Your task to perform on an android device: Go to accessibility settings Image 0: 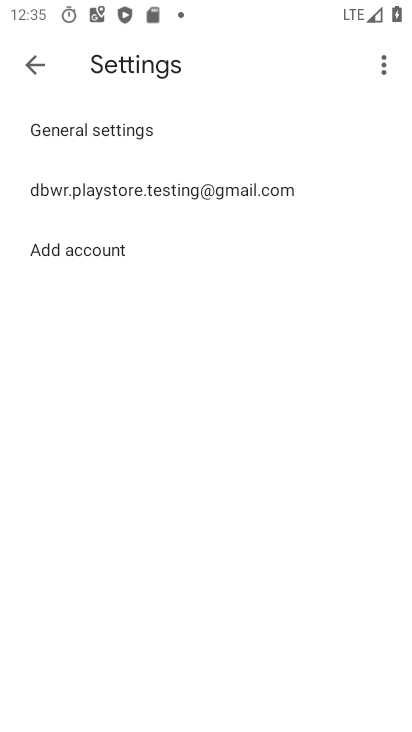
Step 0: press home button
Your task to perform on an android device: Go to accessibility settings Image 1: 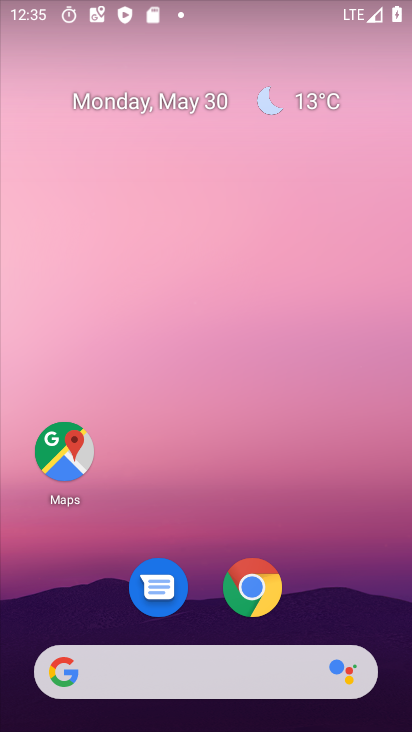
Step 1: drag from (331, 539) to (347, 94)
Your task to perform on an android device: Go to accessibility settings Image 2: 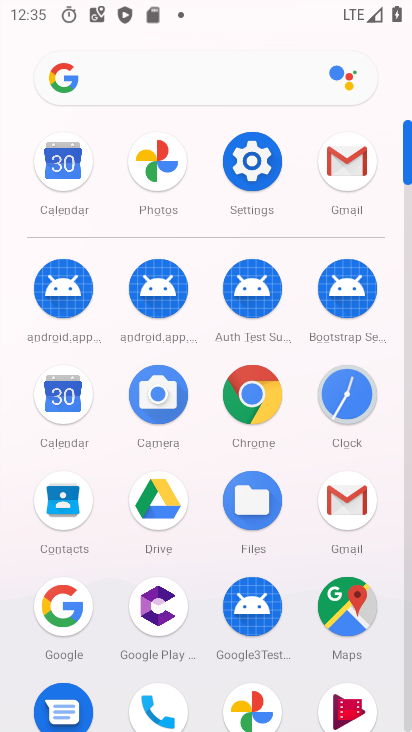
Step 2: click (241, 153)
Your task to perform on an android device: Go to accessibility settings Image 3: 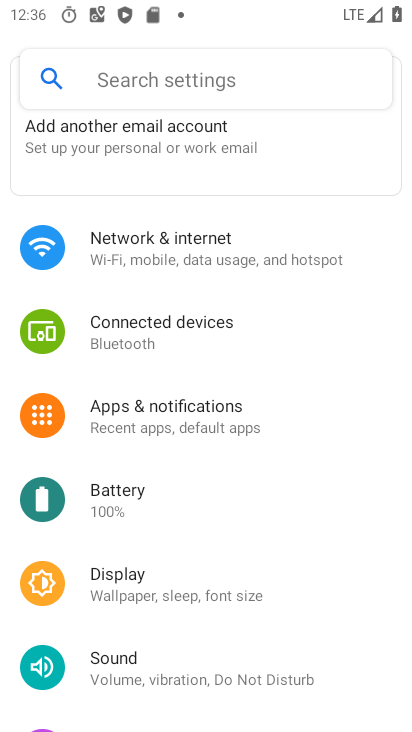
Step 3: drag from (207, 640) to (254, 270)
Your task to perform on an android device: Go to accessibility settings Image 4: 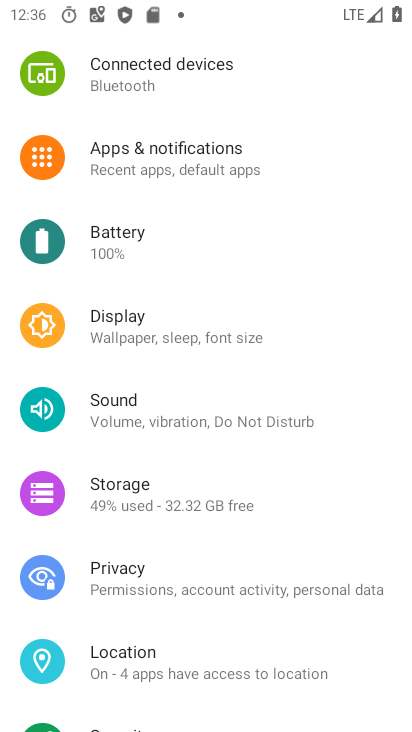
Step 4: drag from (184, 518) to (231, 225)
Your task to perform on an android device: Go to accessibility settings Image 5: 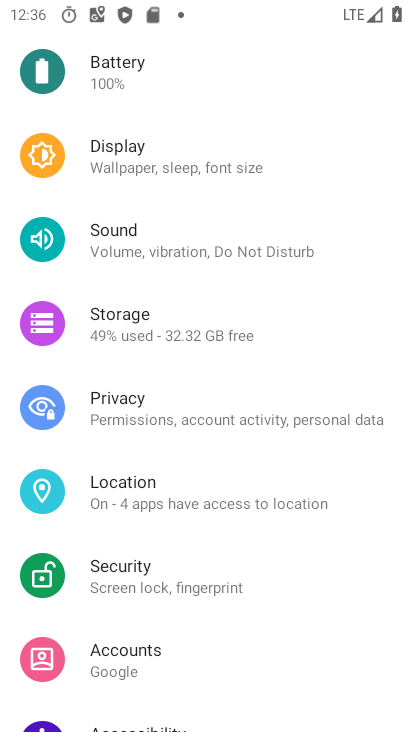
Step 5: drag from (201, 500) to (247, 242)
Your task to perform on an android device: Go to accessibility settings Image 6: 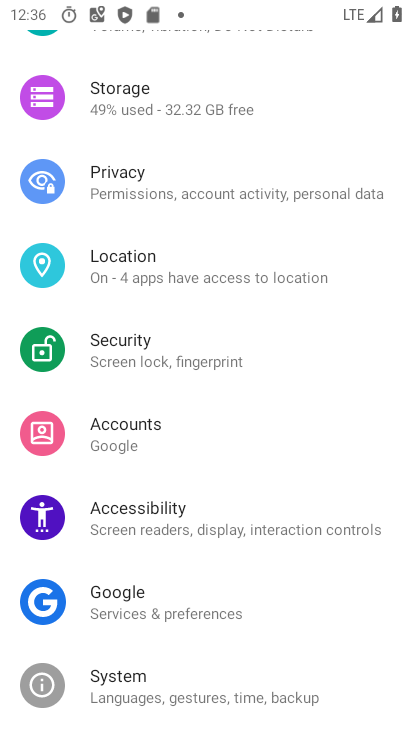
Step 6: click (126, 532)
Your task to perform on an android device: Go to accessibility settings Image 7: 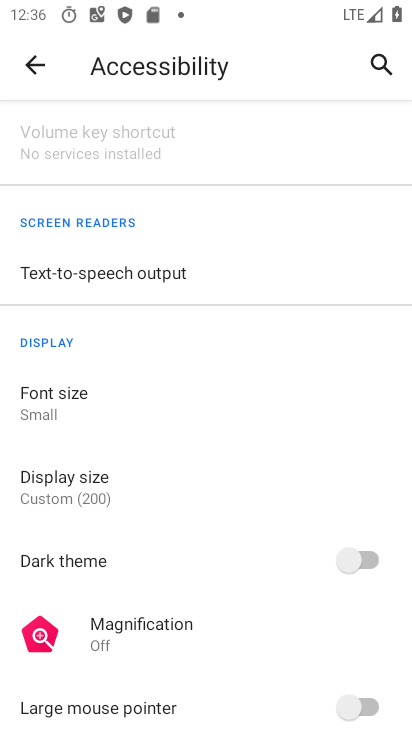
Step 7: task complete